Your task to perform on an android device: Open display settings Image 0: 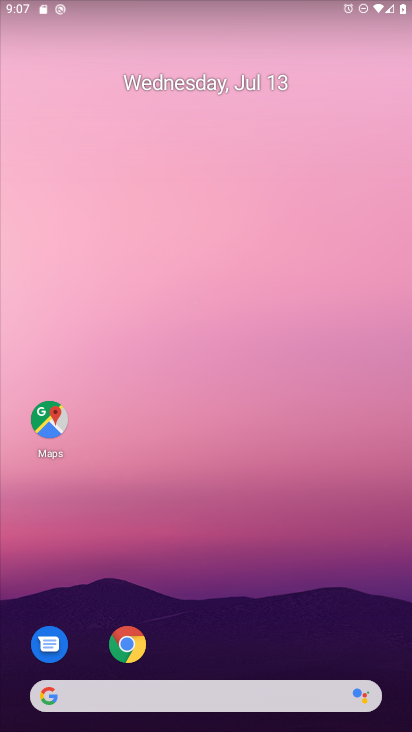
Step 0: press home button
Your task to perform on an android device: Open display settings Image 1: 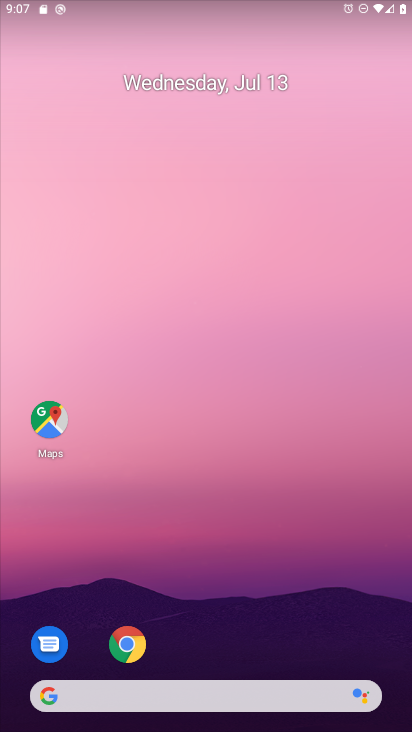
Step 1: drag from (322, 599) to (317, 111)
Your task to perform on an android device: Open display settings Image 2: 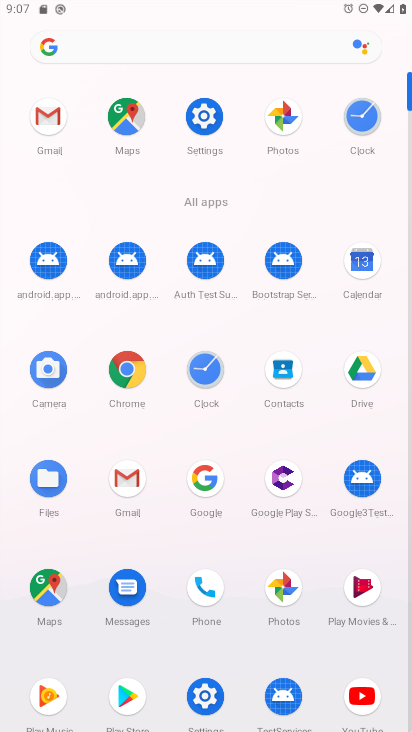
Step 2: click (185, 116)
Your task to perform on an android device: Open display settings Image 3: 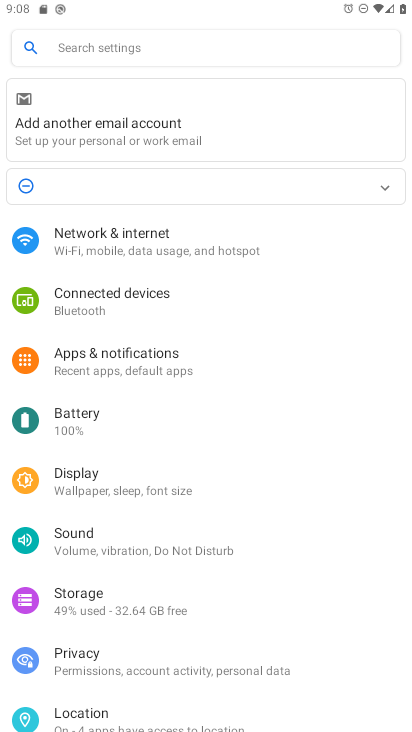
Step 3: click (95, 468)
Your task to perform on an android device: Open display settings Image 4: 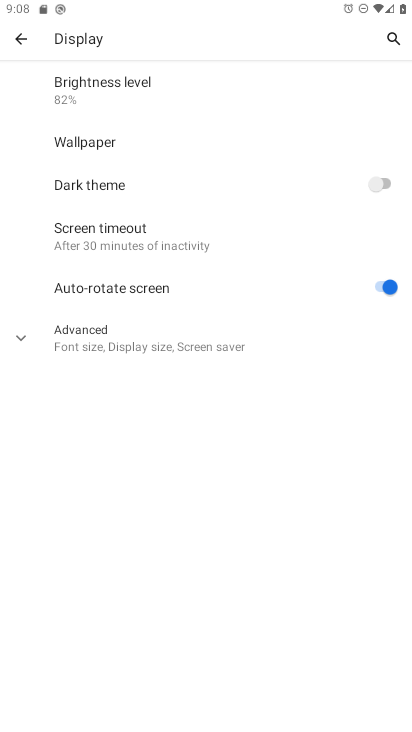
Step 4: task complete